Your task to perform on an android device: open a new tab in the chrome app Image 0: 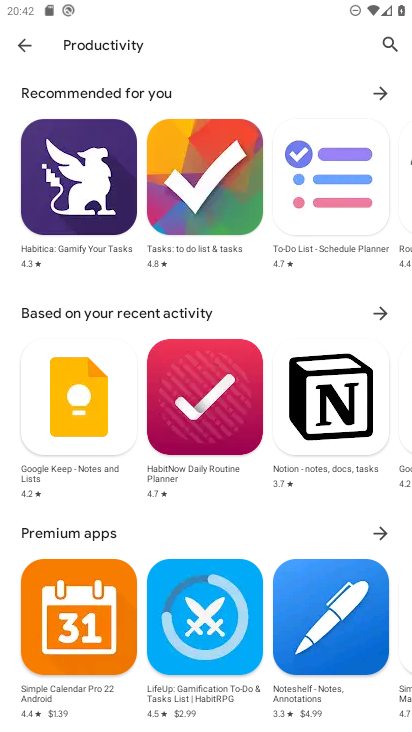
Step 0: press home button
Your task to perform on an android device: open a new tab in the chrome app Image 1: 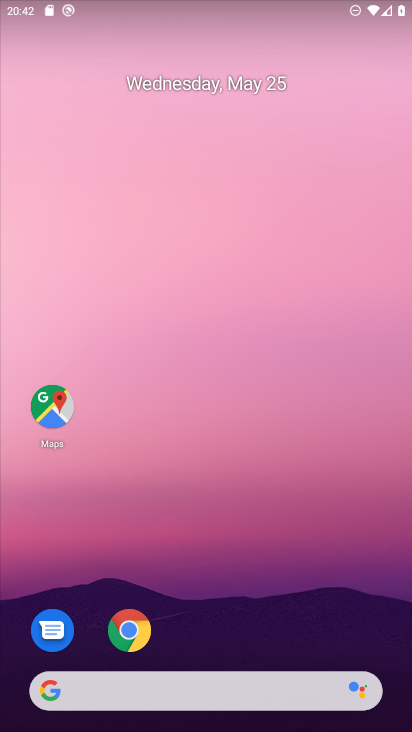
Step 1: click (128, 632)
Your task to perform on an android device: open a new tab in the chrome app Image 2: 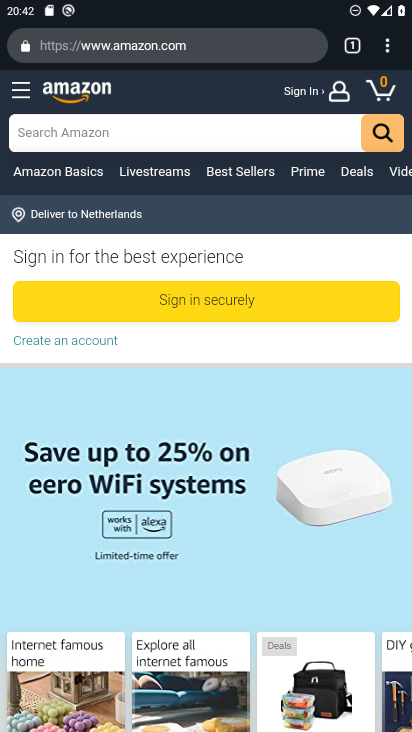
Step 2: click (348, 43)
Your task to perform on an android device: open a new tab in the chrome app Image 3: 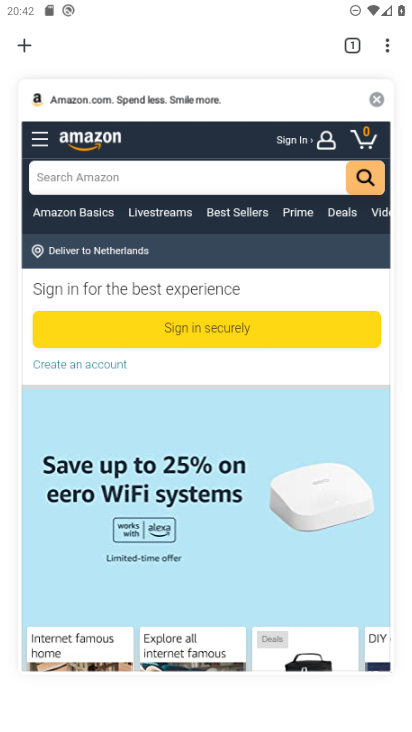
Step 3: click (26, 49)
Your task to perform on an android device: open a new tab in the chrome app Image 4: 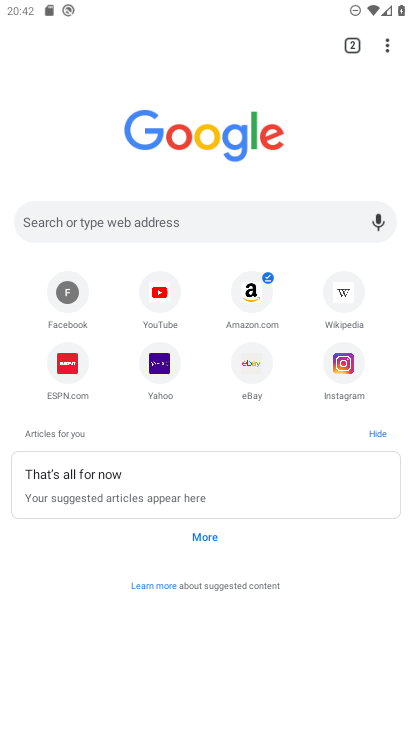
Step 4: task complete